Your task to perform on an android device: set default search engine in the chrome app Image 0: 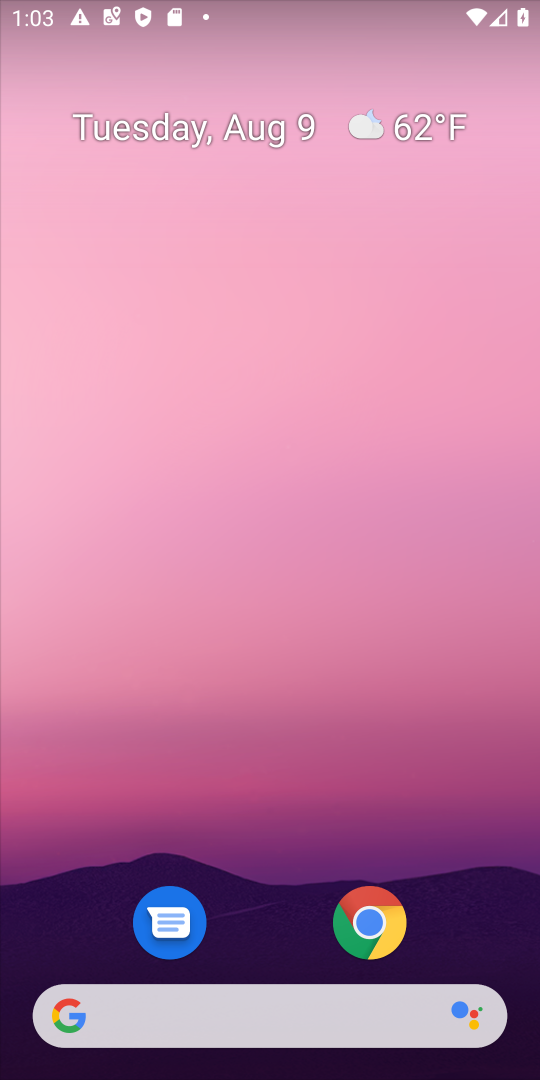
Step 0: click (362, 898)
Your task to perform on an android device: set default search engine in the chrome app Image 1: 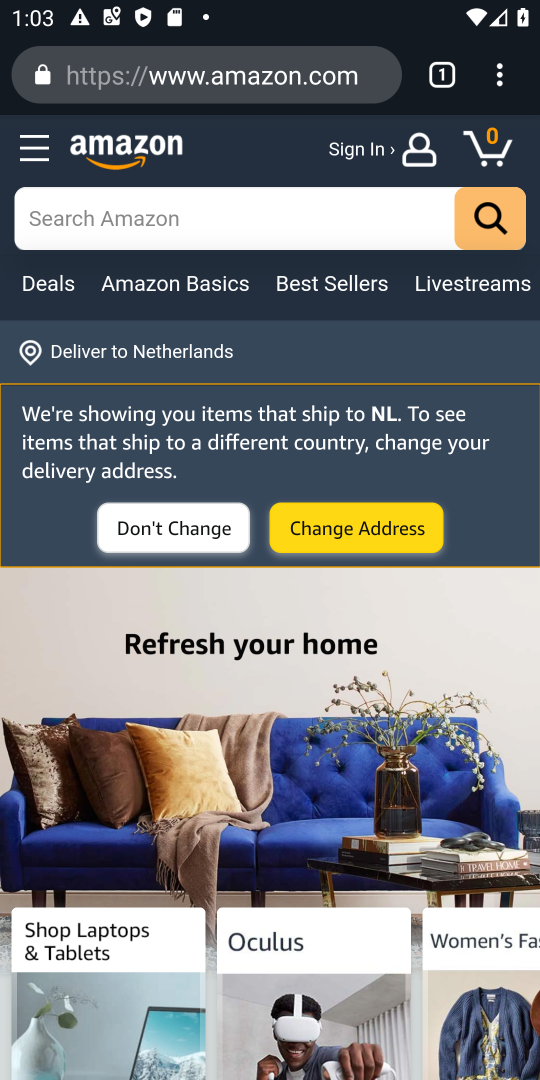
Step 1: click (496, 71)
Your task to perform on an android device: set default search engine in the chrome app Image 2: 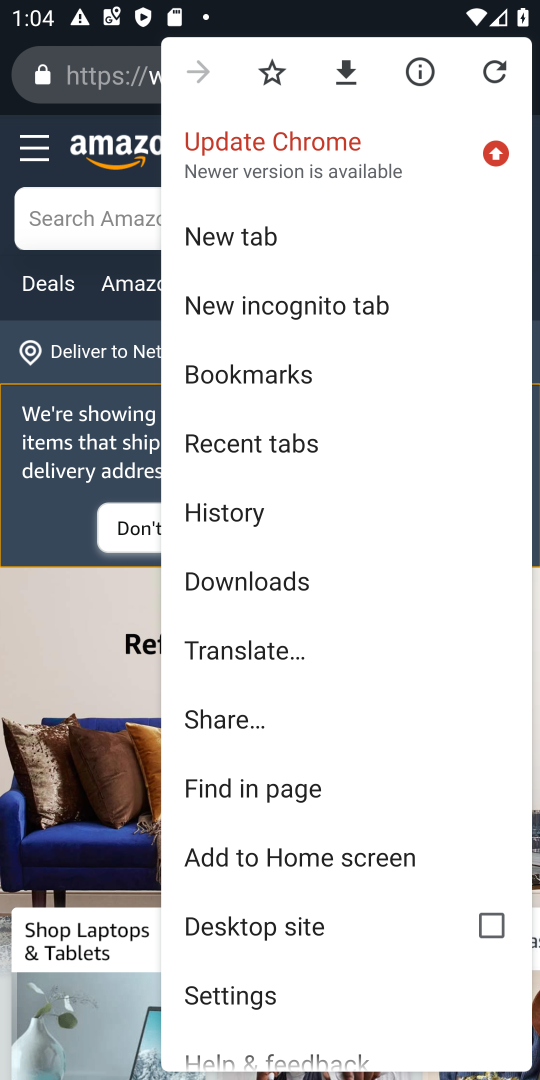
Step 2: click (232, 996)
Your task to perform on an android device: set default search engine in the chrome app Image 3: 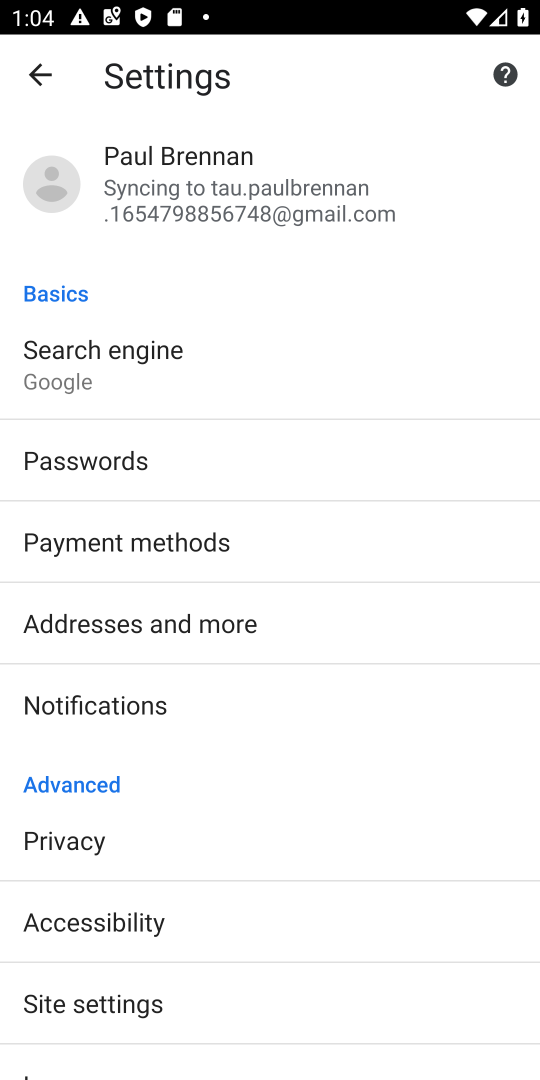
Step 3: click (126, 361)
Your task to perform on an android device: set default search engine in the chrome app Image 4: 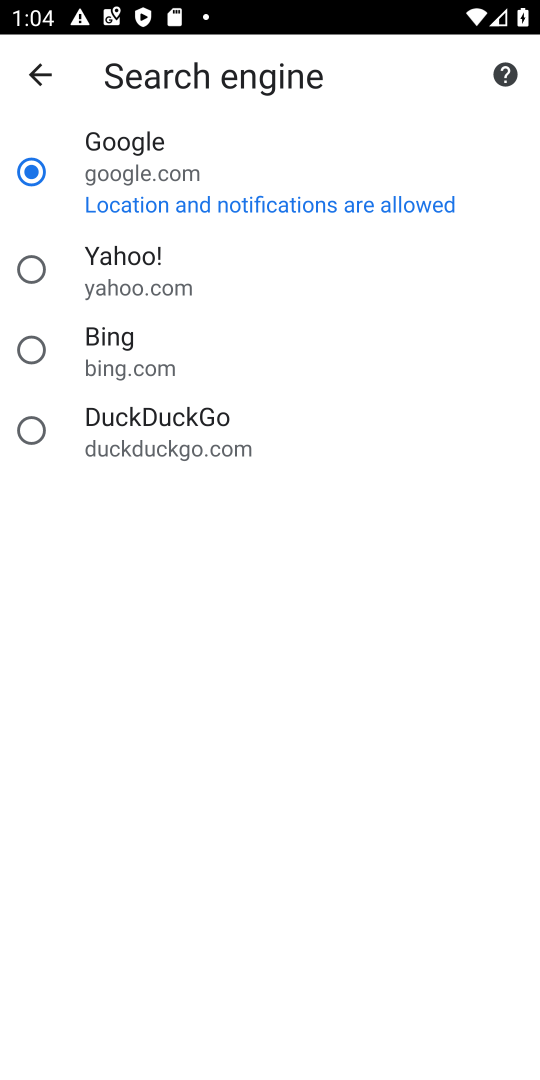
Step 4: task complete